Your task to perform on an android device: Go to Google maps Image 0: 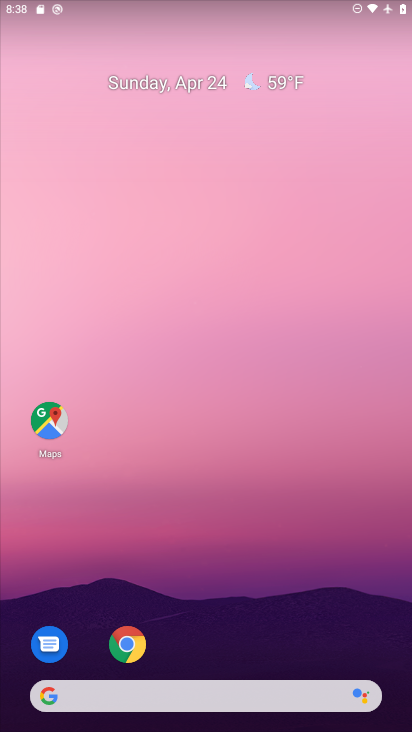
Step 0: drag from (208, 600) to (268, 69)
Your task to perform on an android device: Go to Google maps Image 1: 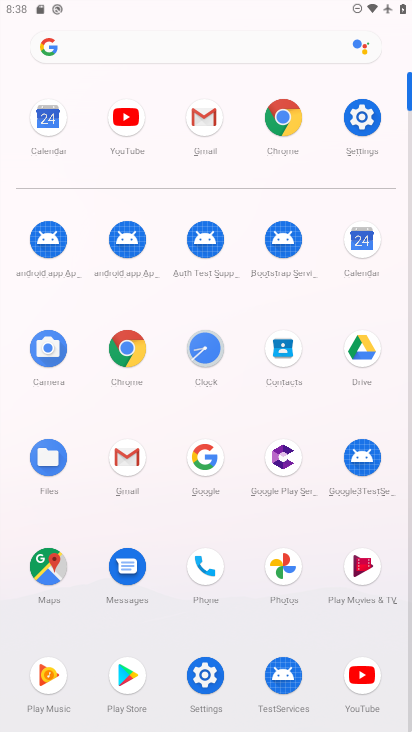
Step 1: click (46, 561)
Your task to perform on an android device: Go to Google maps Image 2: 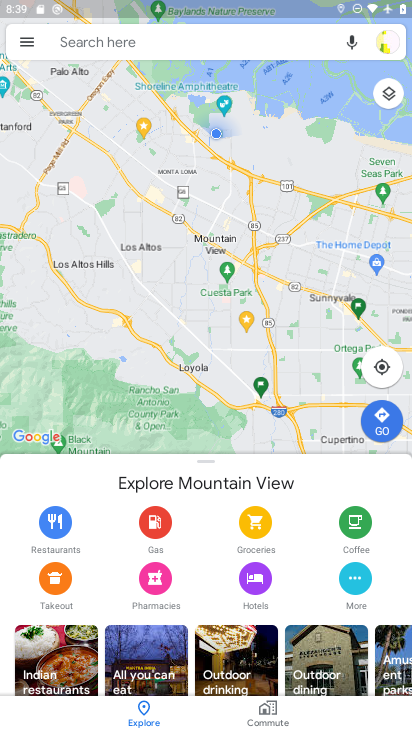
Step 2: click (27, 39)
Your task to perform on an android device: Go to Google maps Image 3: 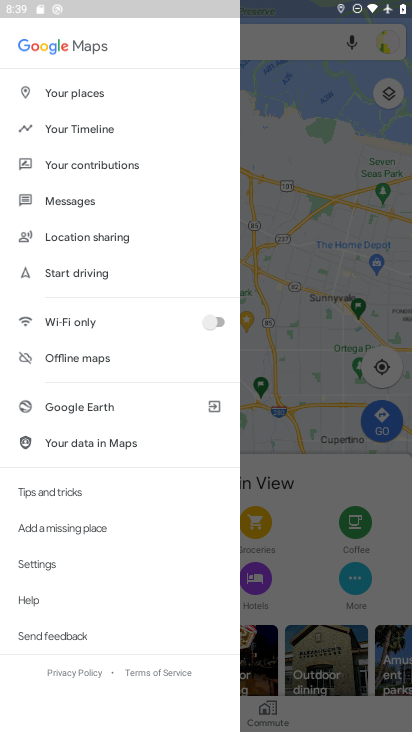
Step 3: click (305, 321)
Your task to perform on an android device: Go to Google maps Image 4: 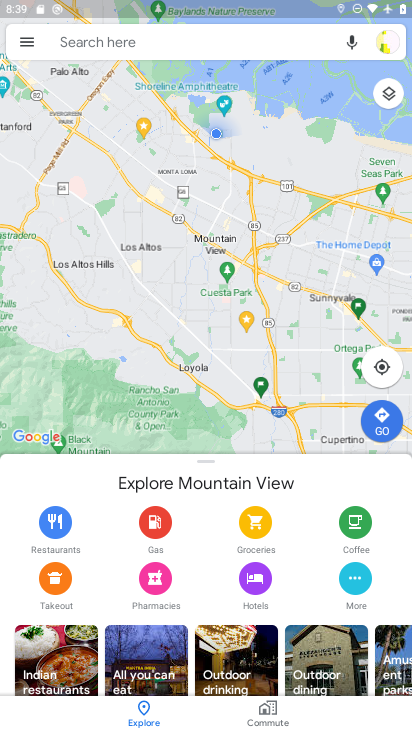
Step 4: task complete